Your task to perform on an android device: Do I have any events this weekend? Image 0: 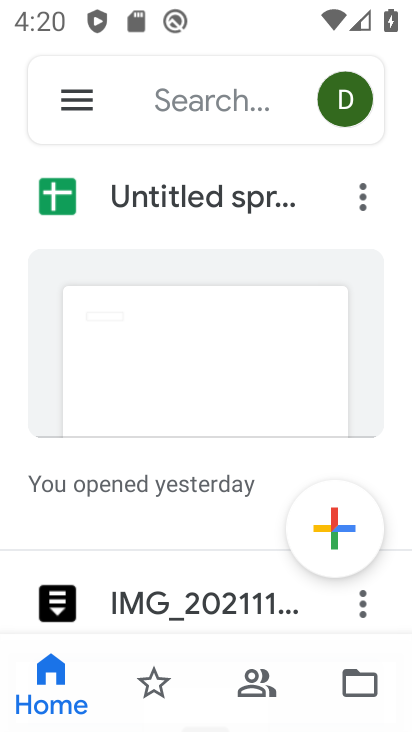
Step 0: press home button
Your task to perform on an android device: Do I have any events this weekend? Image 1: 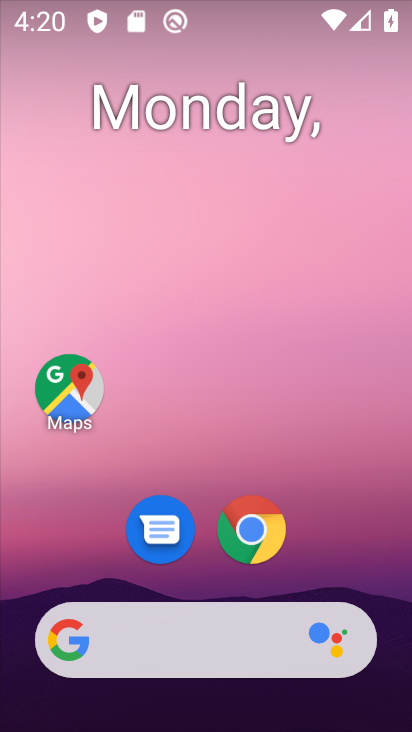
Step 1: drag from (222, 512) to (378, 10)
Your task to perform on an android device: Do I have any events this weekend? Image 2: 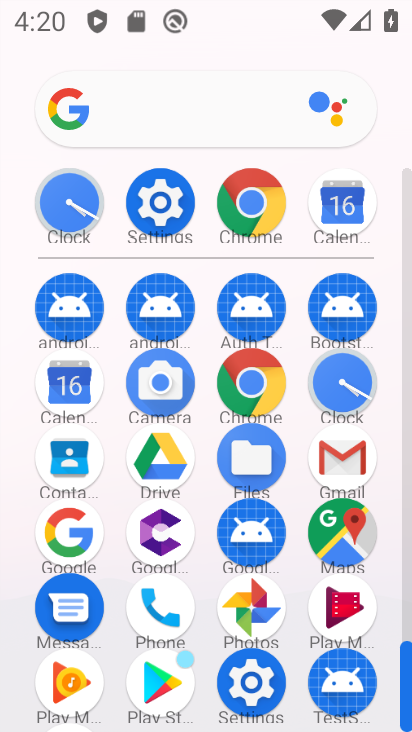
Step 2: click (56, 384)
Your task to perform on an android device: Do I have any events this weekend? Image 3: 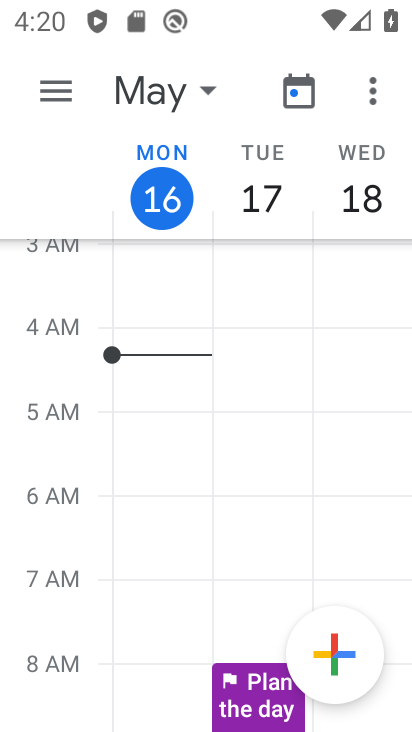
Step 3: click (59, 93)
Your task to perform on an android device: Do I have any events this weekend? Image 4: 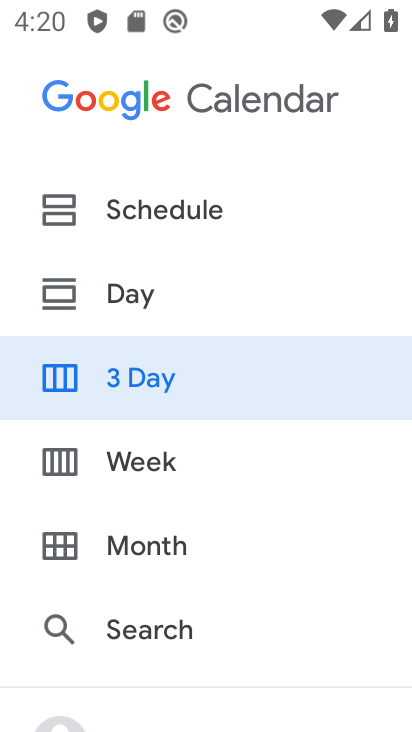
Step 4: click (169, 456)
Your task to perform on an android device: Do I have any events this weekend? Image 5: 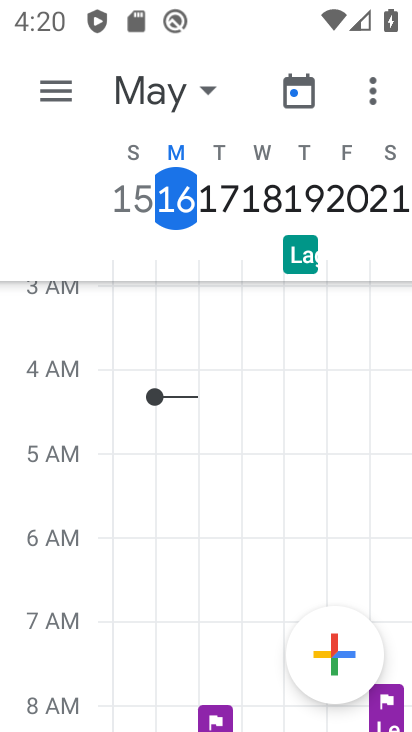
Step 5: click (47, 91)
Your task to perform on an android device: Do I have any events this weekend? Image 6: 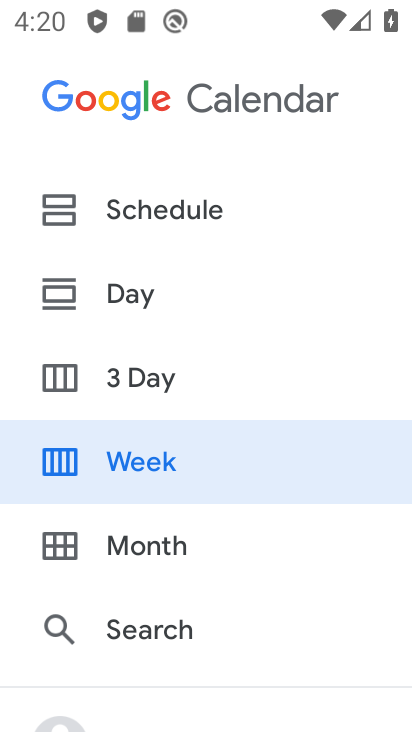
Step 6: drag from (132, 571) to (275, 68)
Your task to perform on an android device: Do I have any events this weekend? Image 7: 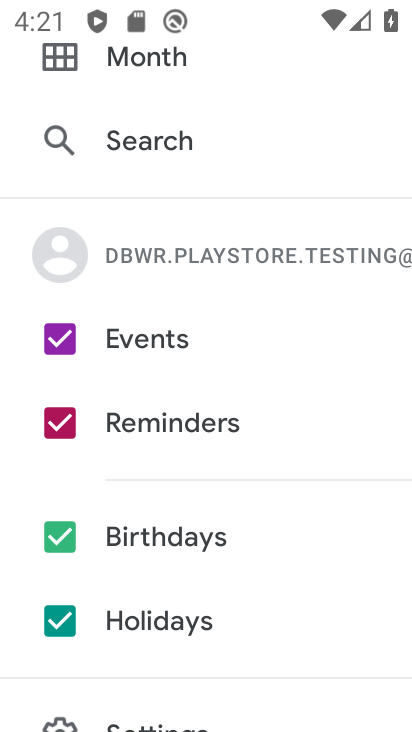
Step 7: click (184, 431)
Your task to perform on an android device: Do I have any events this weekend? Image 8: 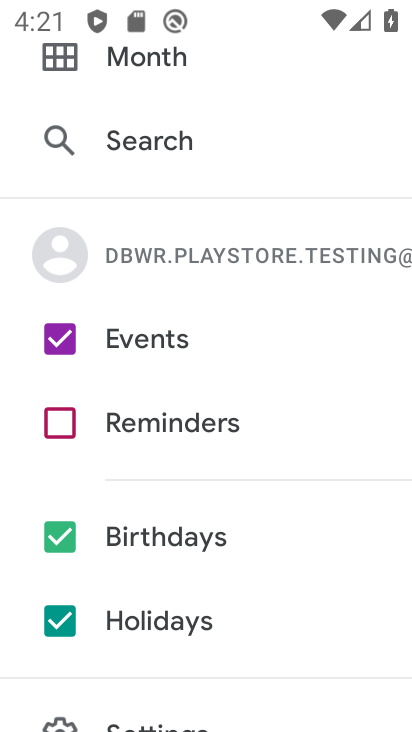
Step 8: click (135, 535)
Your task to perform on an android device: Do I have any events this weekend? Image 9: 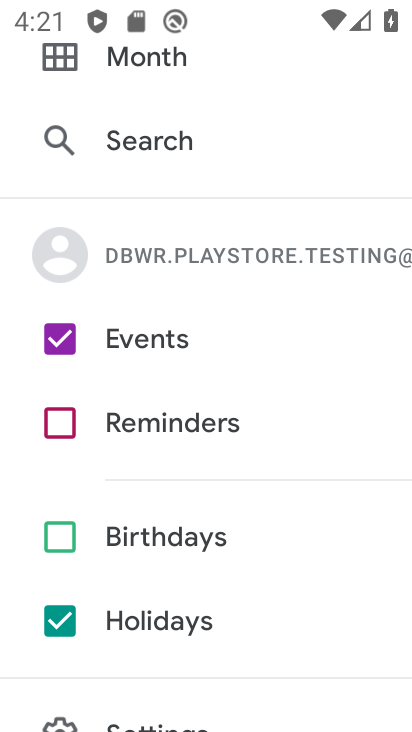
Step 9: click (109, 636)
Your task to perform on an android device: Do I have any events this weekend? Image 10: 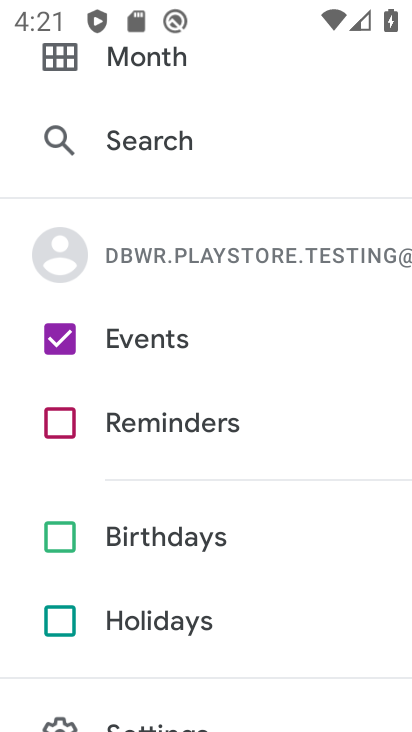
Step 10: drag from (337, 343) to (316, 548)
Your task to perform on an android device: Do I have any events this weekend? Image 11: 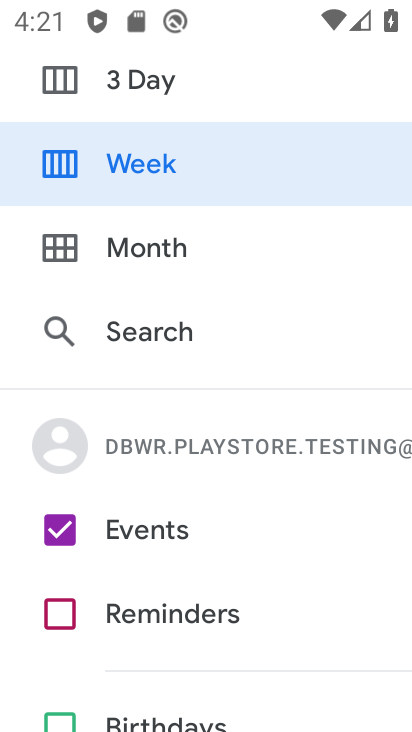
Step 11: click (216, 178)
Your task to perform on an android device: Do I have any events this weekend? Image 12: 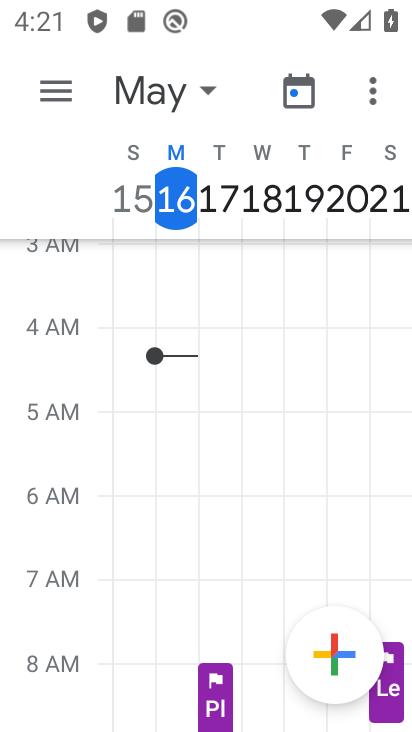
Step 12: task complete